Your task to perform on an android device: Open the phone app and click the voicemail tab. Image 0: 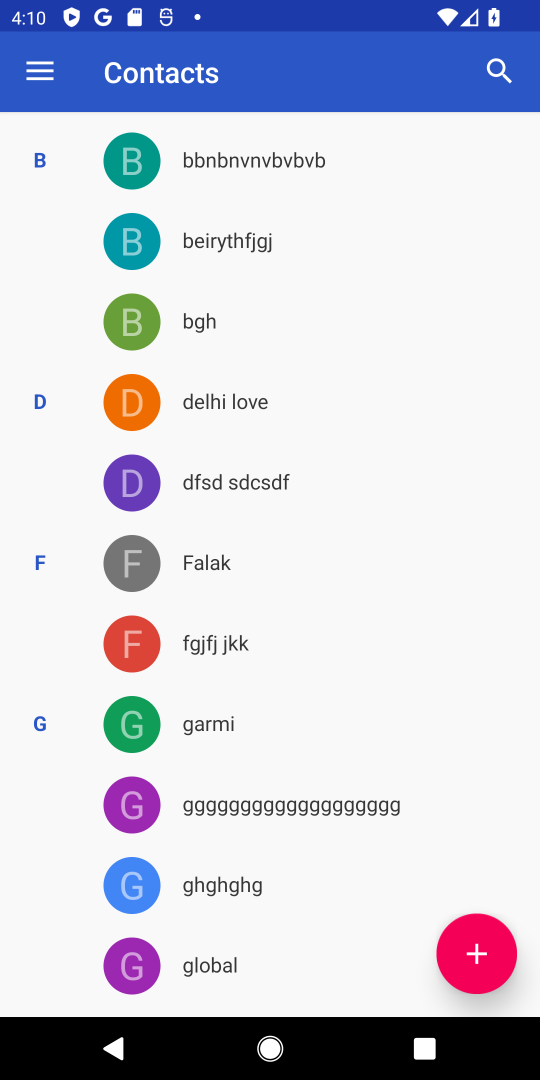
Step 0: press home button
Your task to perform on an android device: Open the phone app and click the voicemail tab. Image 1: 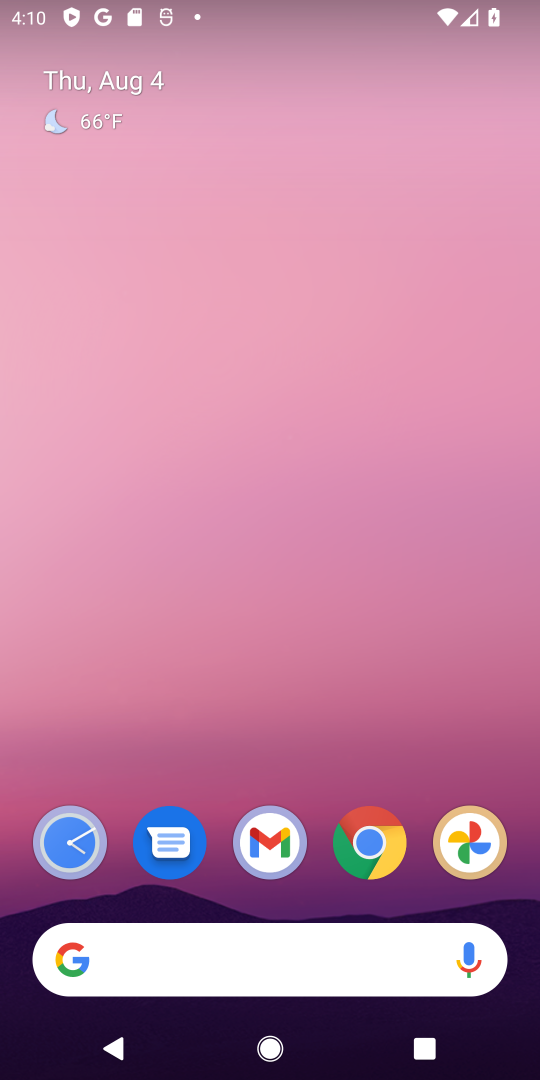
Step 1: drag from (247, 704) to (224, 13)
Your task to perform on an android device: Open the phone app and click the voicemail tab. Image 2: 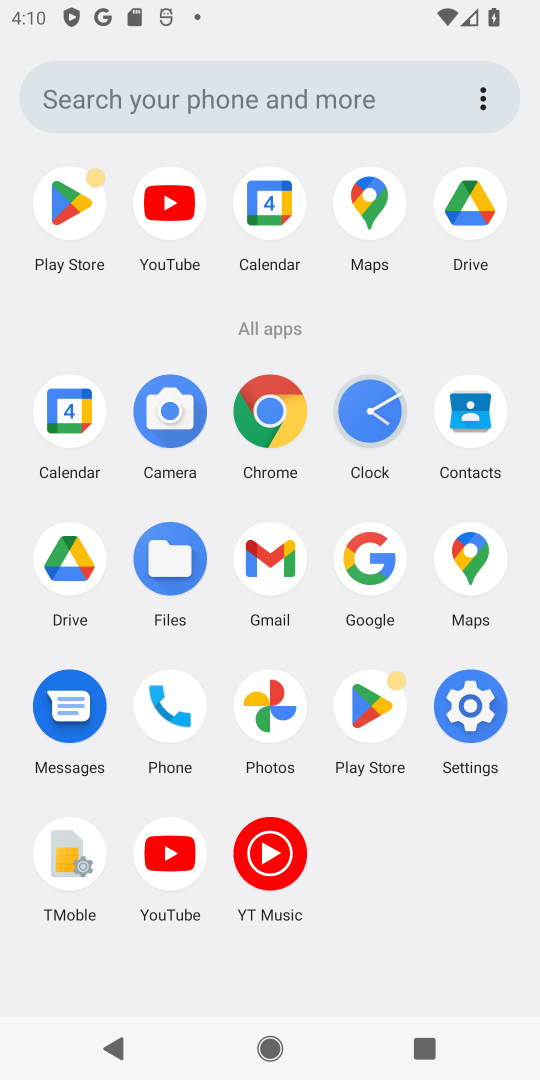
Step 2: click (148, 707)
Your task to perform on an android device: Open the phone app and click the voicemail tab. Image 3: 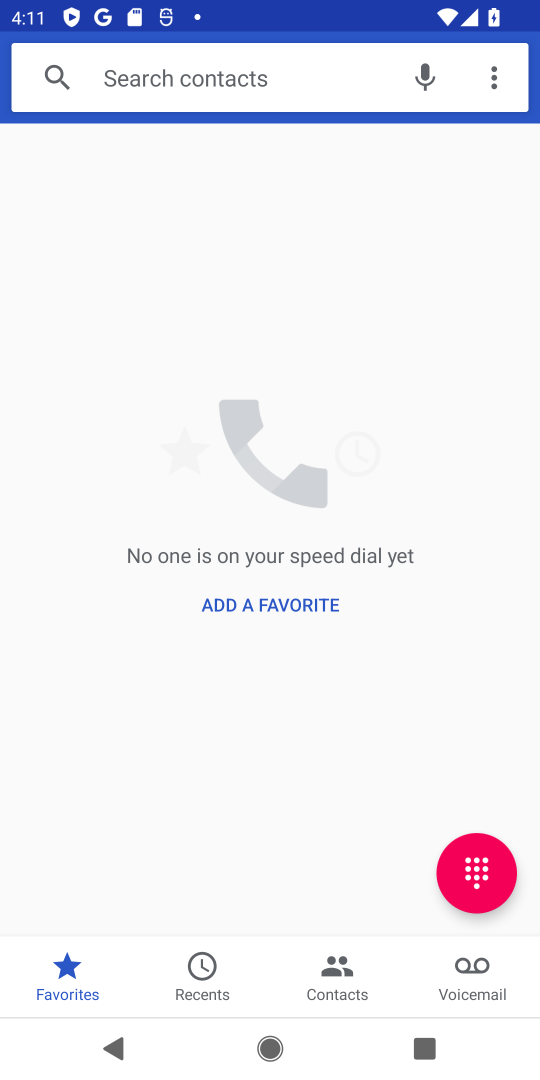
Step 3: click (448, 969)
Your task to perform on an android device: Open the phone app and click the voicemail tab. Image 4: 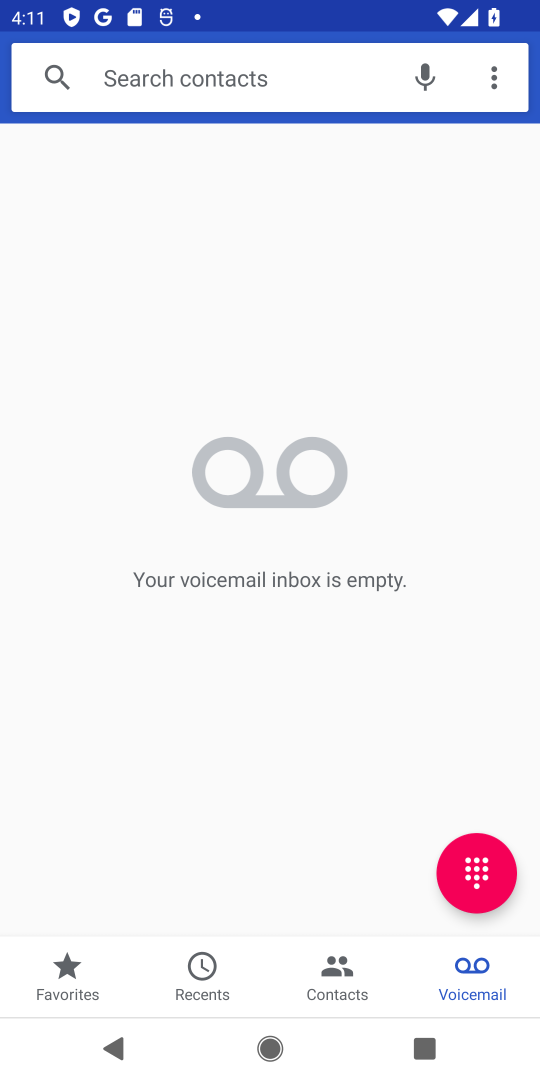
Step 4: task complete